Your task to perform on an android device: make emails show in primary in the gmail app Image 0: 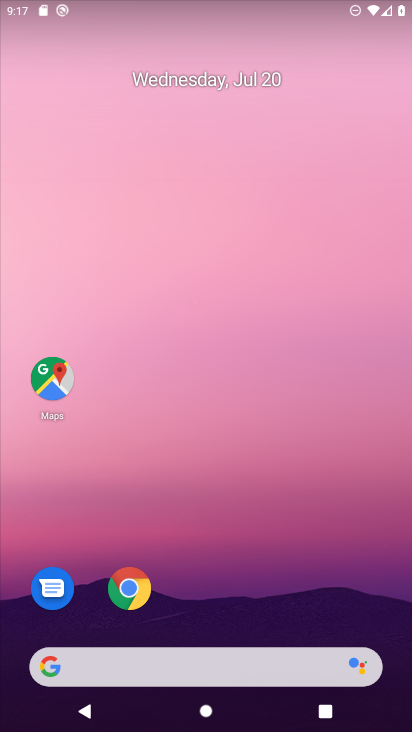
Step 0: drag from (195, 591) to (223, 148)
Your task to perform on an android device: make emails show in primary in the gmail app Image 1: 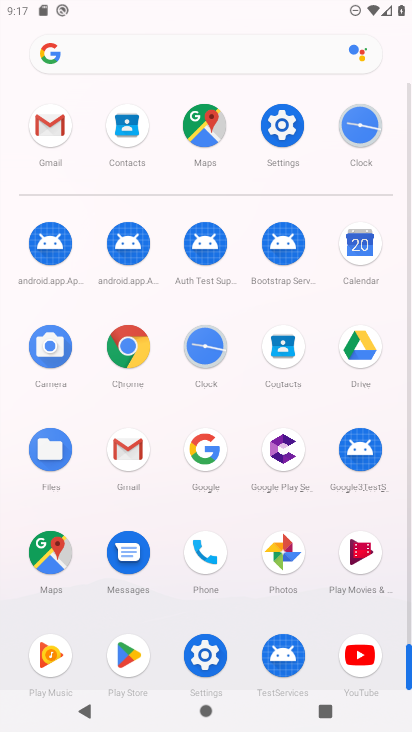
Step 1: click (41, 131)
Your task to perform on an android device: make emails show in primary in the gmail app Image 2: 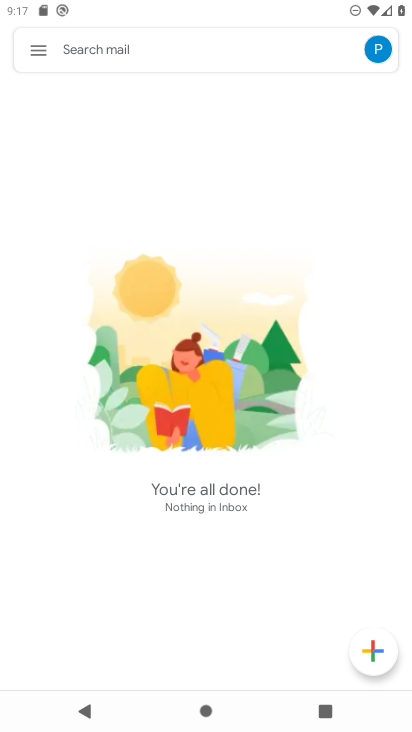
Step 2: task complete